Your task to perform on an android device: check data usage Image 0: 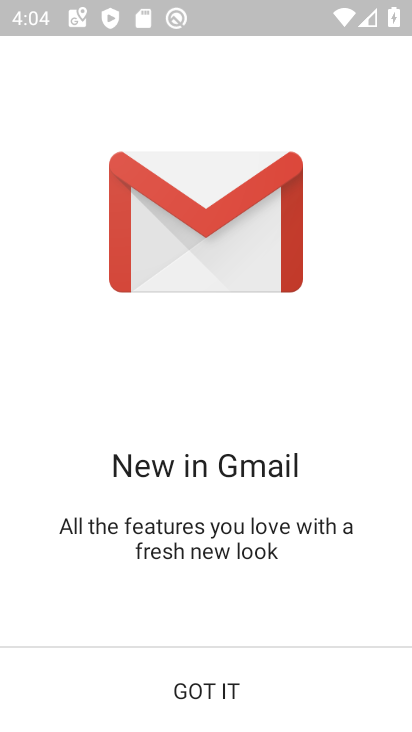
Step 0: press back button
Your task to perform on an android device: check data usage Image 1: 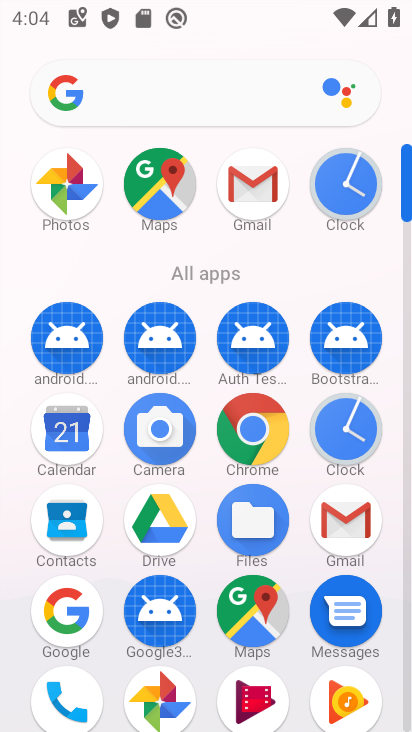
Step 1: drag from (179, 540) to (229, 230)
Your task to perform on an android device: check data usage Image 2: 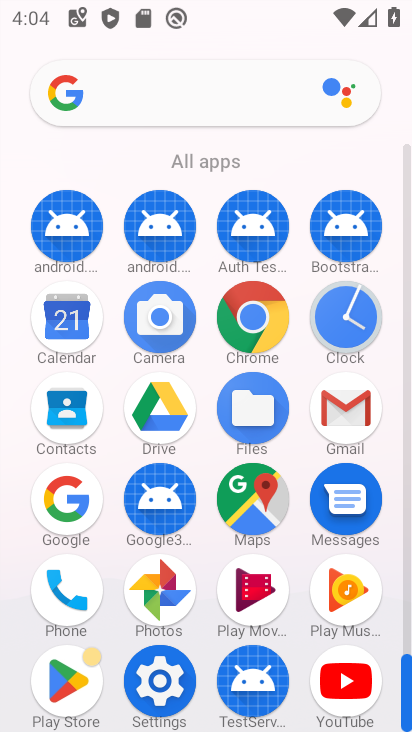
Step 2: click (181, 672)
Your task to perform on an android device: check data usage Image 3: 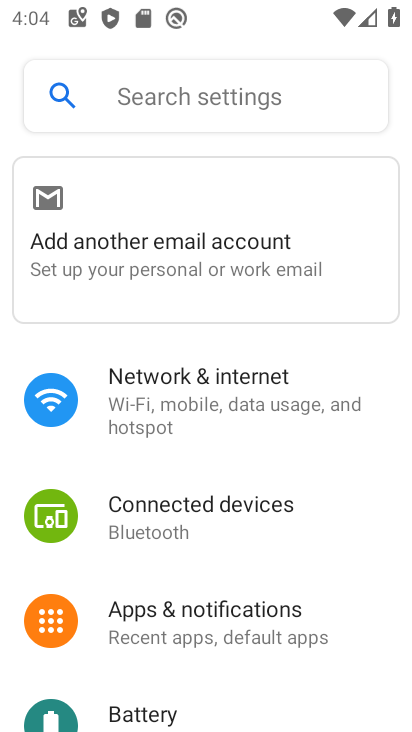
Step 3: drag from (198, 652) to (248, 136)
Your task to perform on an android device: check data usage Image 4: 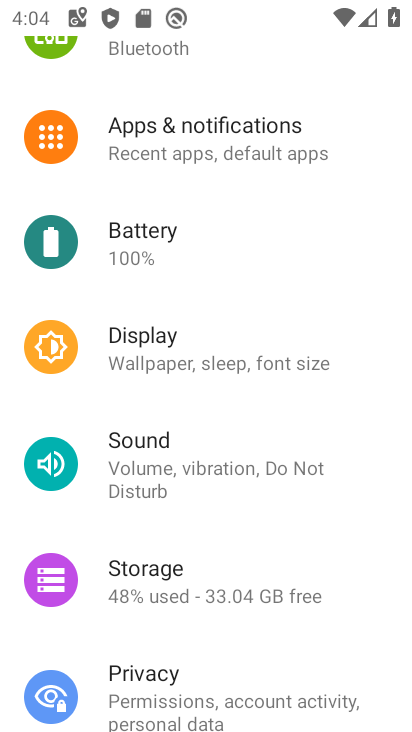
Step 4: drag from (271, 247) to (259, 671)
Your task to perform on an android device: check data usage Image 5: 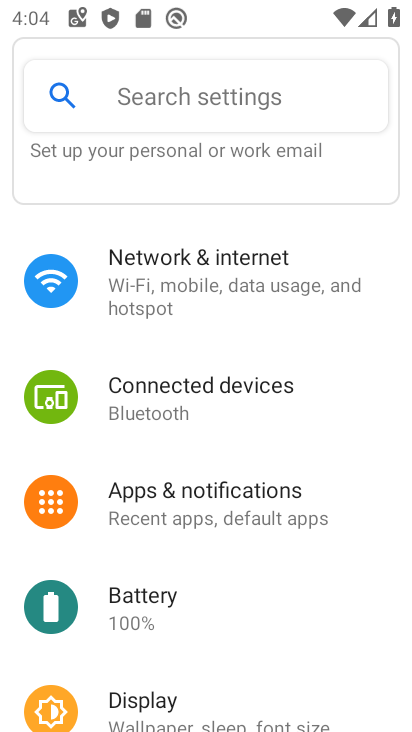
Step 5: click (233, 286)
Your task to perform on an android device: check data usage Image 6: 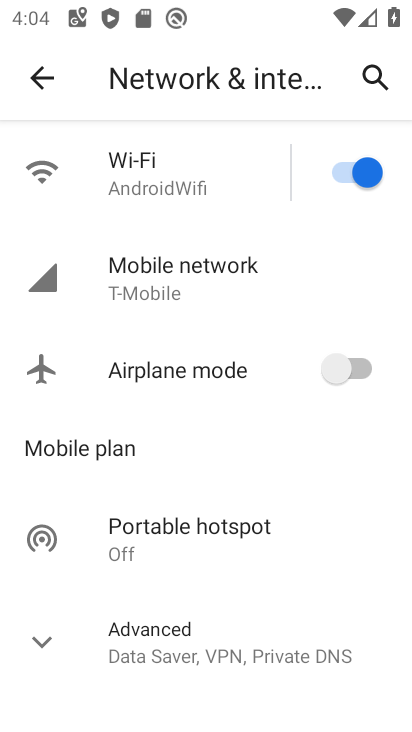
Step 6: click (158, 275)
Your task to perform on an android device: check data usage Image 7: 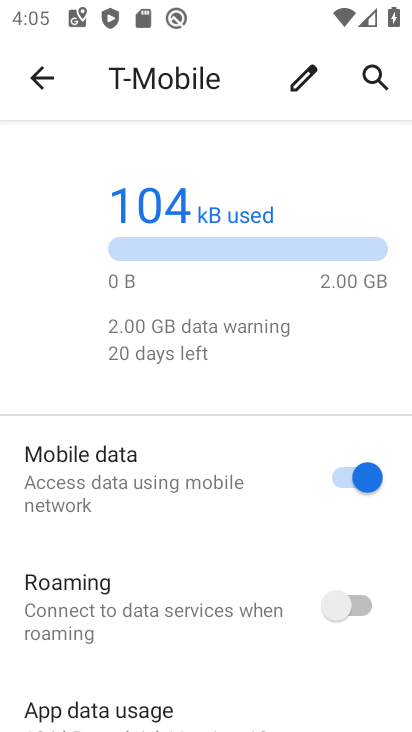
Step 7: click (117, 706)
Your task to perform on an android device: check data usage Image 8: 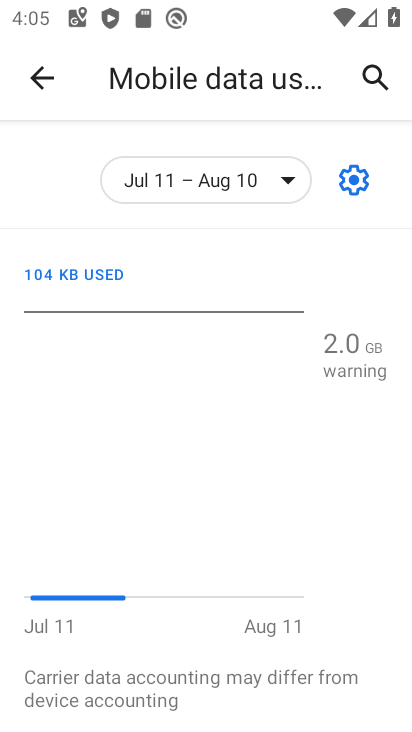
Step 8: task complete